Your task to perform on an android device: see tabs open on other devices in the chrome app Image 0: 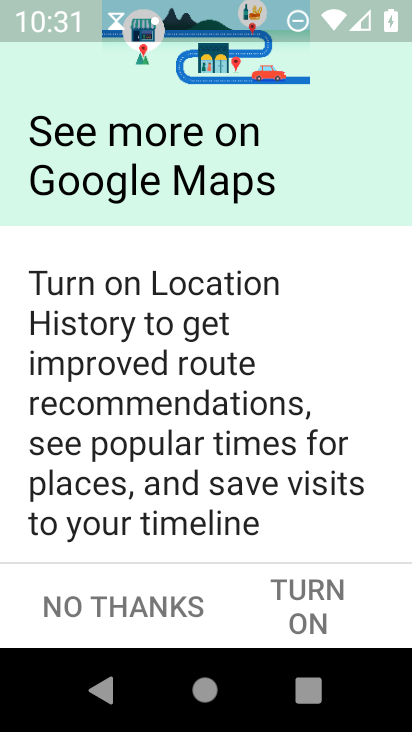
Step 0: press home button
Your task to perform on an android device: see tabs open on other devices in the chrome app Image 1: 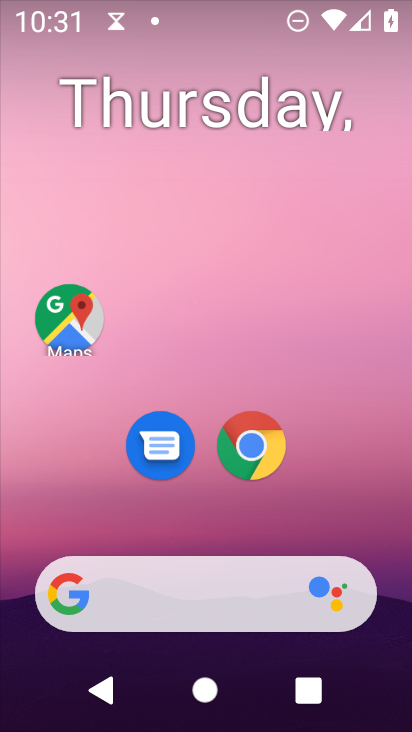
Step 1: click (252, 455)
Your task to perform on an android device: see tabs open on other devices in the chrome app Image 2: 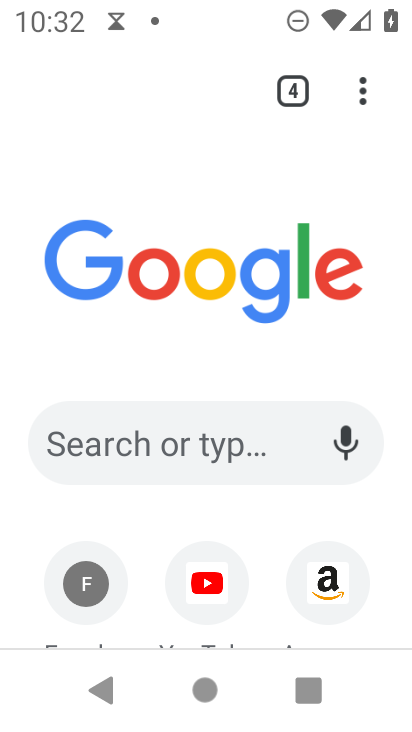
Step 2: click (361, 97)
Your task to perform on an android device: see tabs open on other devices in the chrome app Image 3: 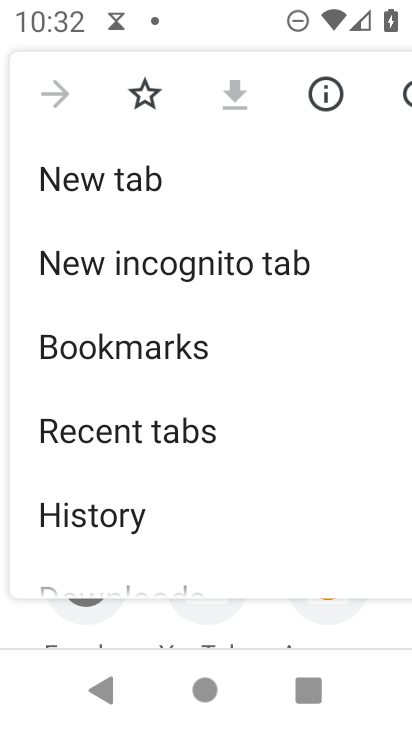
Step 3: click (134, 433)
Your task to perform on an android device: see tabs open on other devices in the chrome app Image 4: 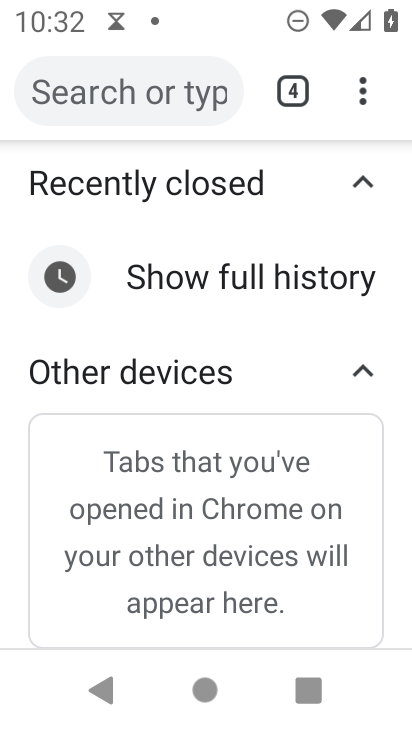
Step 4: task complete